Your task to perform on an android device: toggle priority inbox in the gmail app Image 0: 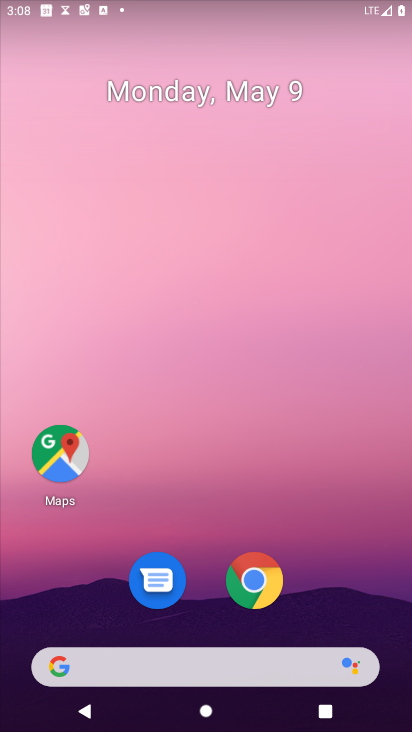
Step 0: drag from (321, 499) to (250, 177)
Your task to perform on an android device: toggle priority inbox in the gmail app Image 1: 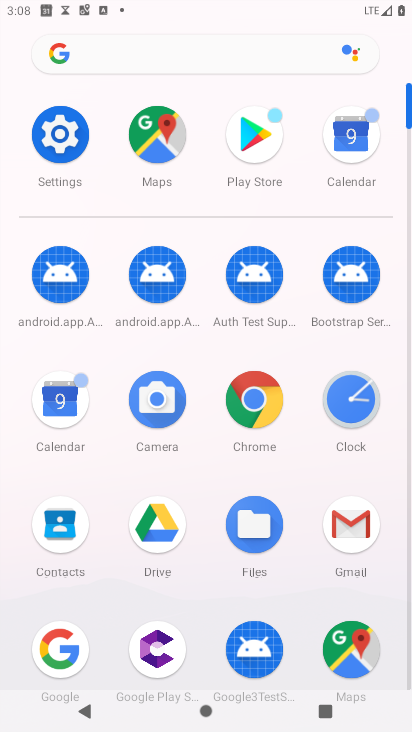
Step 1: click (349, 525)
Your task to perform on an android device: toggle priority inbox in the gmail app Image 2: 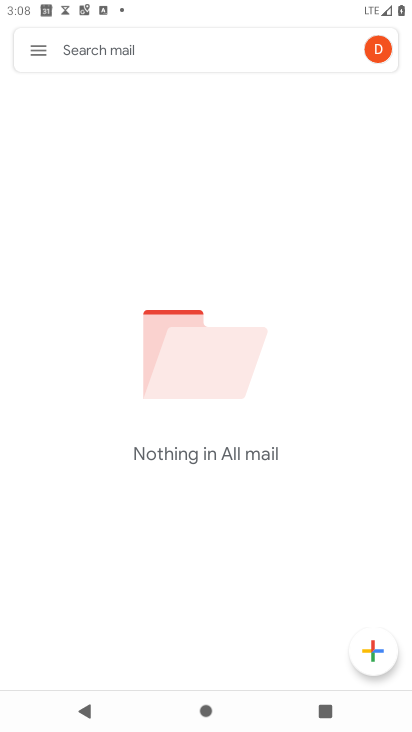
Step 2: click (37, 45)
Your task to perform on an android device: toggle priority inbox in the gmail app Image 3: 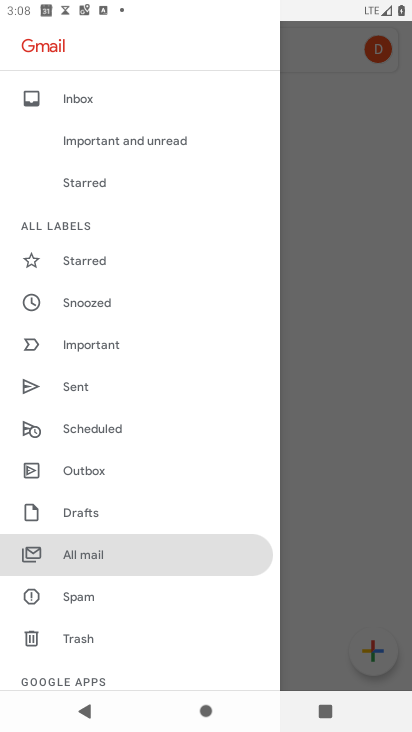
Step 3: drag from (150, 591) to (150, 249)
Your task to perform on an android device: toggle priority inbox in the gmail app Image 4: 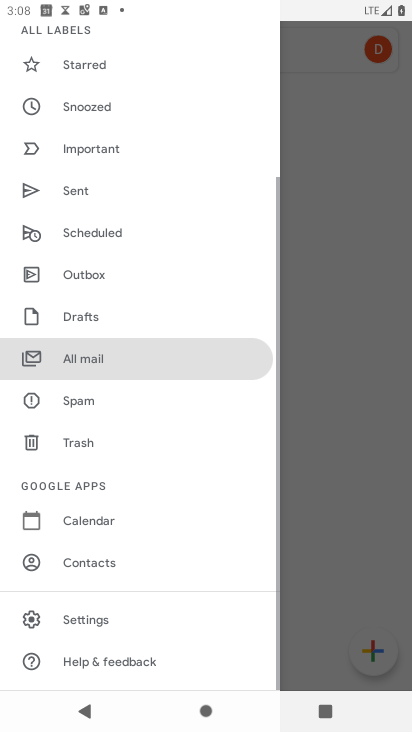
Step 4: click (115, 615)
Your task to perform on an android device: toggle priority inbox in the gmail app Image 5: 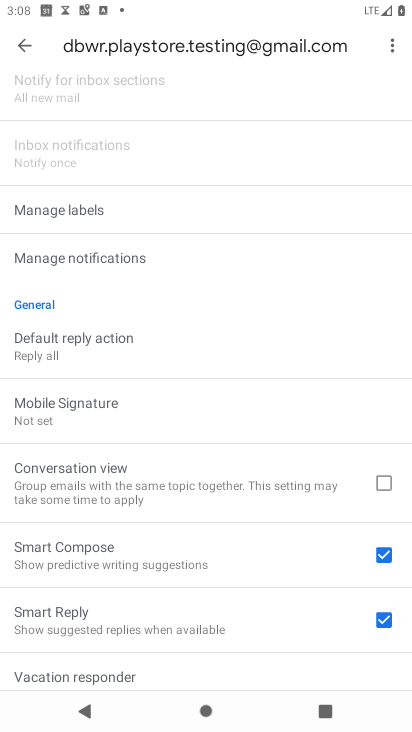
Step 5: drag from (196, 261) to (165, 581)
Your task to perform on an android device: toggle priority inbox in the gmail app Image 6: 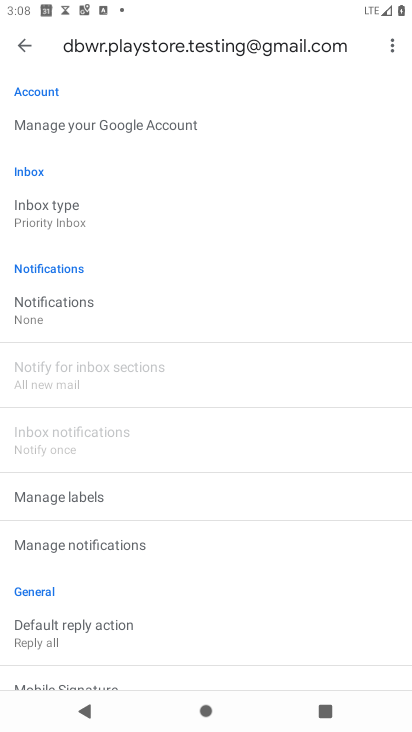
Step 6: click (186, 207)
Your task to perform on an android device: toggle priority inbox in the gmail app Image 7: 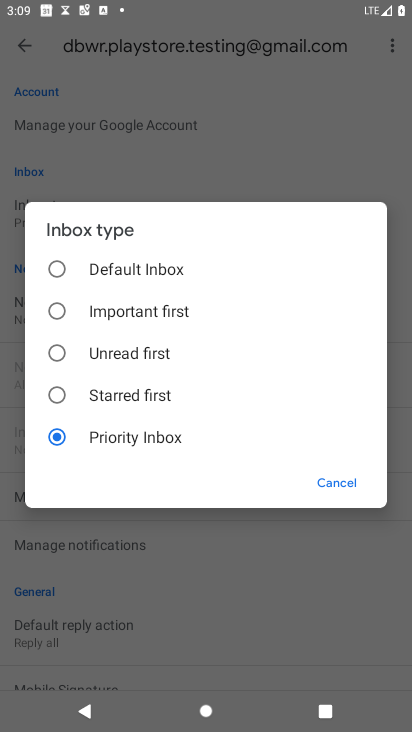
Step 7: click (129, 274)
Your task to perform on an android device: toggle priority inbox in the gmail app Image 8: 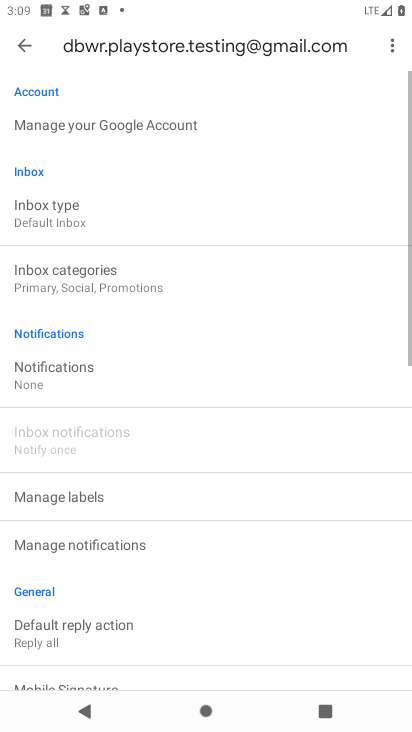
Step 8: task complete